Your task to perform on an android device: Open maps Image 0: 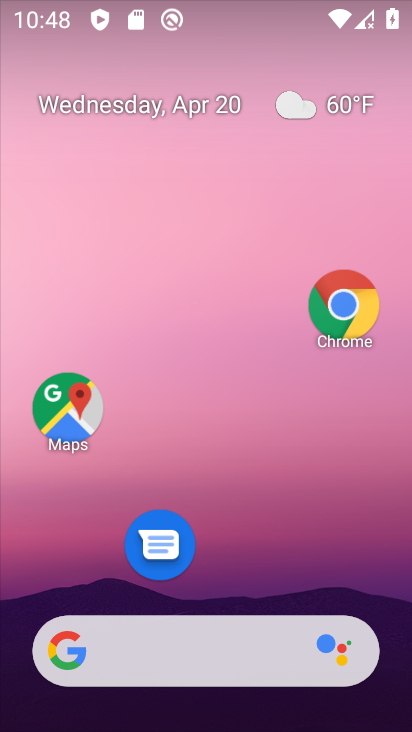
Step 0: click (90, 421)
Your task to perform on an android device: Open maps Image 1: 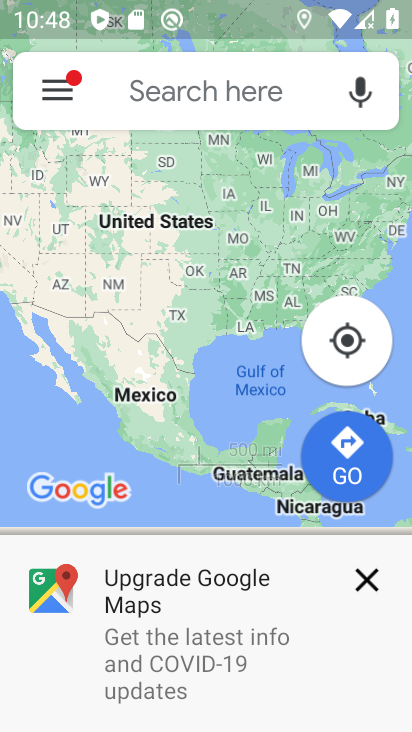
Step 1: task complete